Your task to perform on an android device: Open Android settings Image 0: 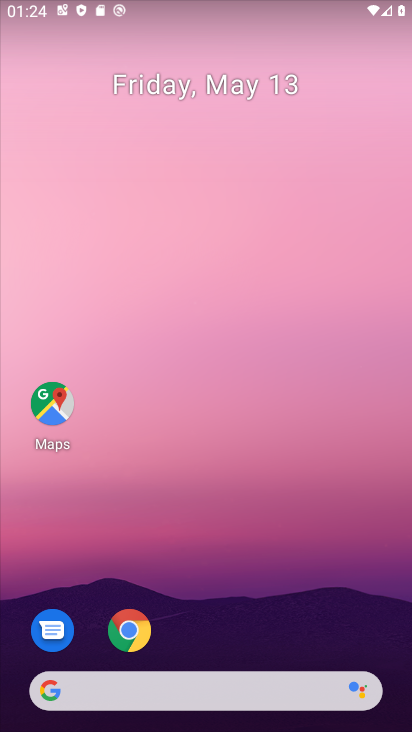
Step 0: drag from (263, 713) to (262, 289)
Your task to perform on an android device: Open Android settings Image 1: 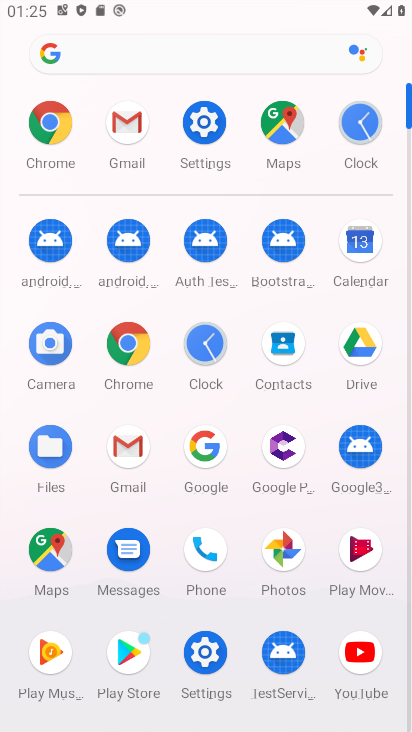
Step 1: click (204, 129)
Your task to perform on an android device: Open Android settings Image 2: 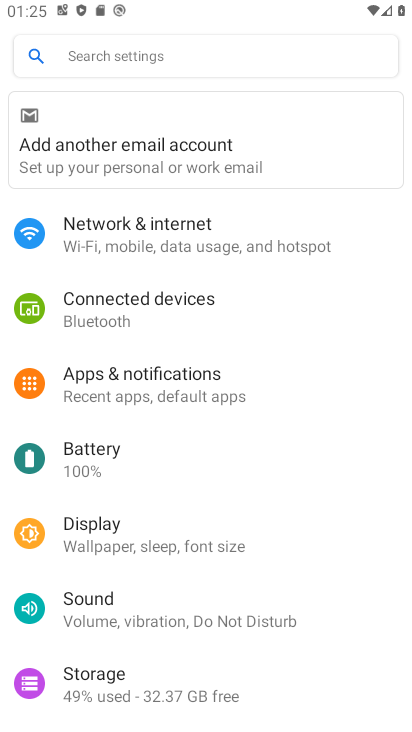
Step 2: click (103, 64)
Your task to perform on an android device: Open Android settings Image 3: 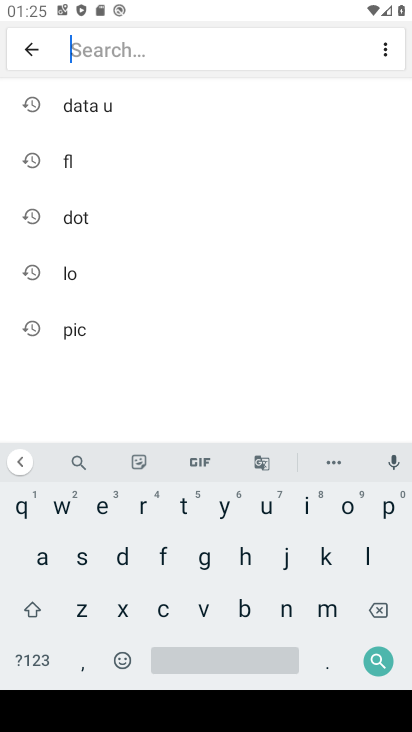
Step 3: click (44, 563)
Your task to perform on an android device: Open Android settings Image 4: 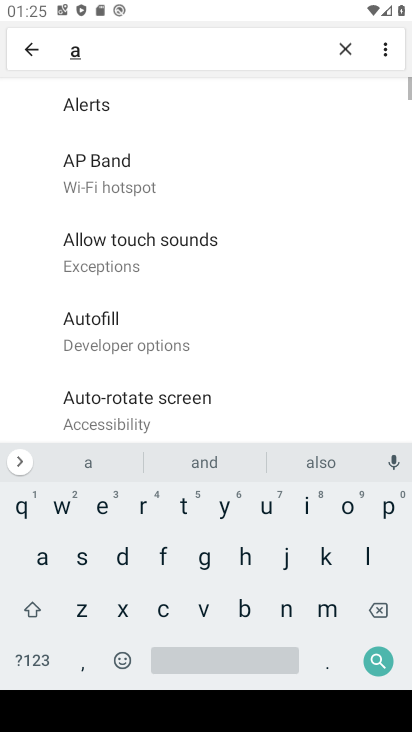
Step 4: click (278, 600)
Your task to perform on an android device: Open Android settings Image 5: 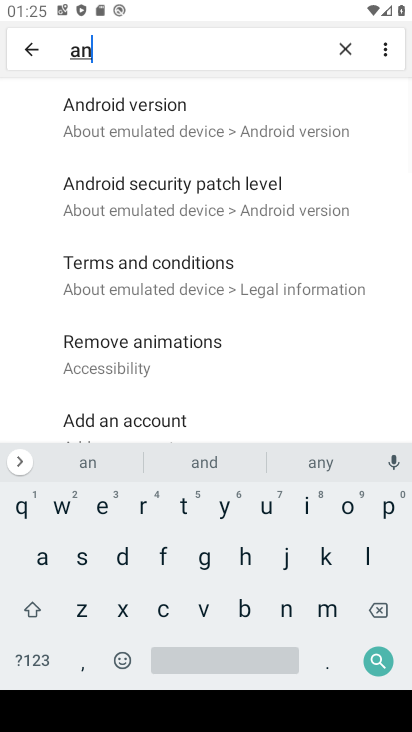
Step 5: click (102, 104)
Your task to perform on an android device: Open Android settings Image 6: 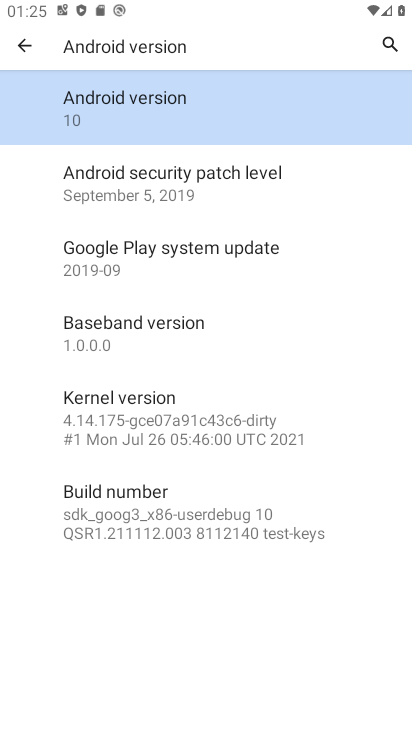
Step 6: click (143, 120)
Your task to perform on an android device: Open Android settings Image 7: 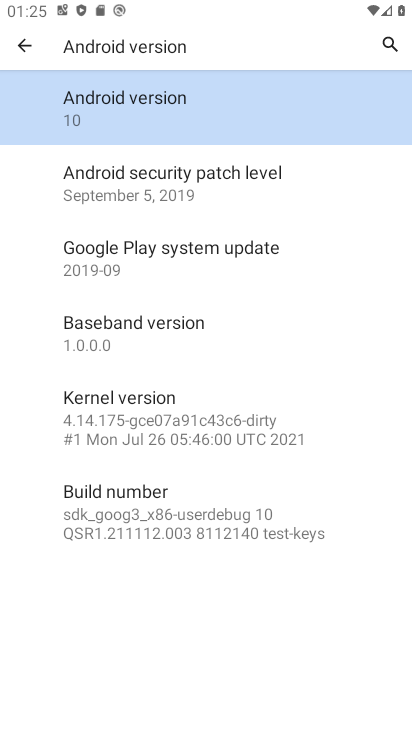
Step 7: task complete